Your task to perform on an android device: manage bookmarks in the chrome app Image 0: 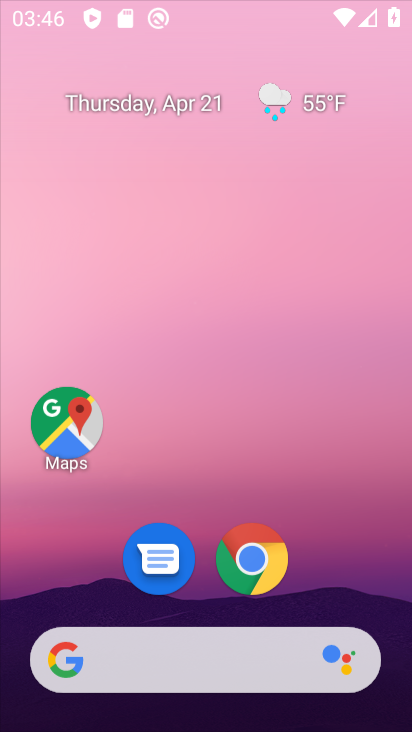
Step 0: click (282, 562)
Your task to perform on an android device: manage bookmarks in the chrome app Image 1: 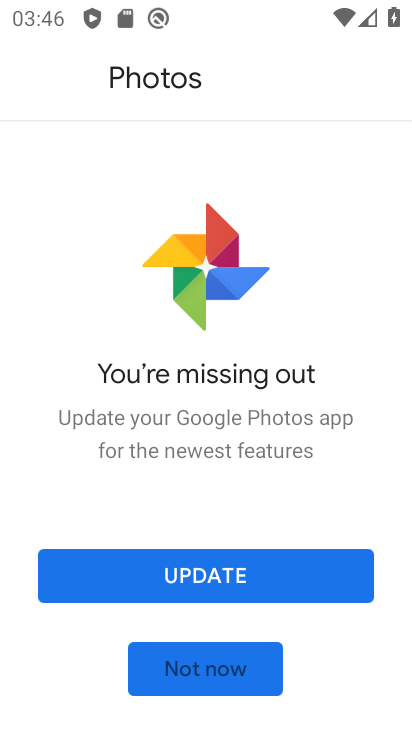
Step 1: press home button
Your task to perform on an android device: manage bookmarks in the chrome app Image 2: 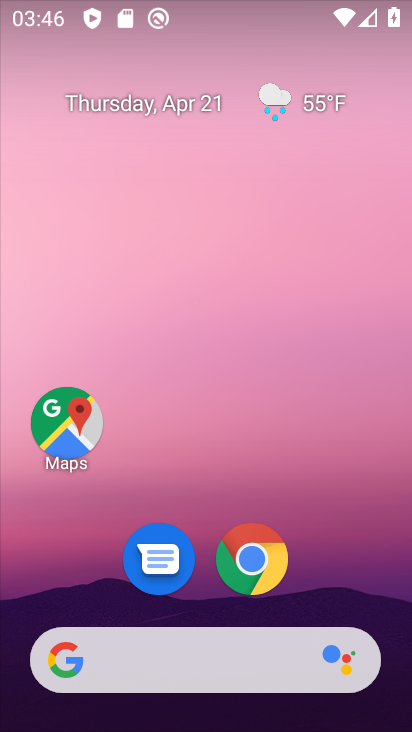
Step 2: click (255, 547)
Your task to perform on an android device: manage bookmarks in the chrome app Image 3: 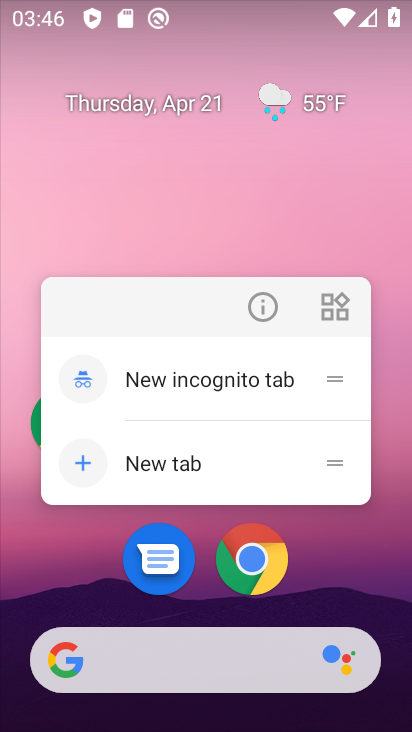
Step 3: click (280, 570)
Your task to perform on an android device: manage bookmarks in the chrome app Image 4: 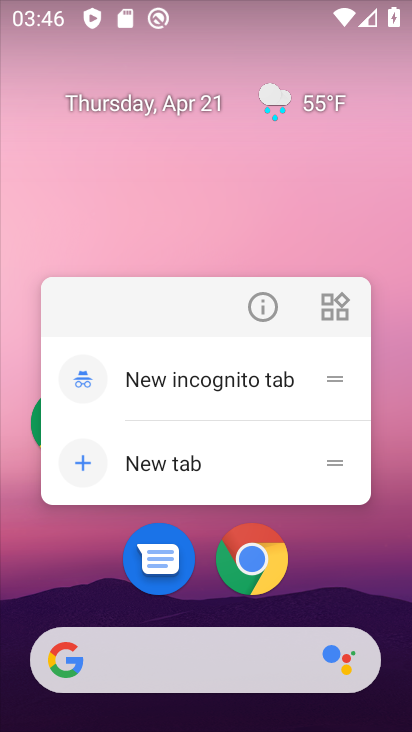
Step 4: click (256, 573)
Your task to perform on an android device: manage bookmarks in the chrome app Image 5: 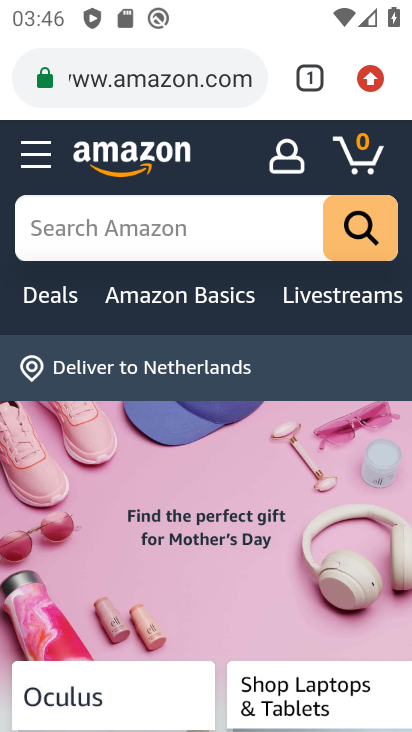
Step 5: click (371, 92)
Your task to perform on an android device: manage bookmarks in the chrome app Image 6: 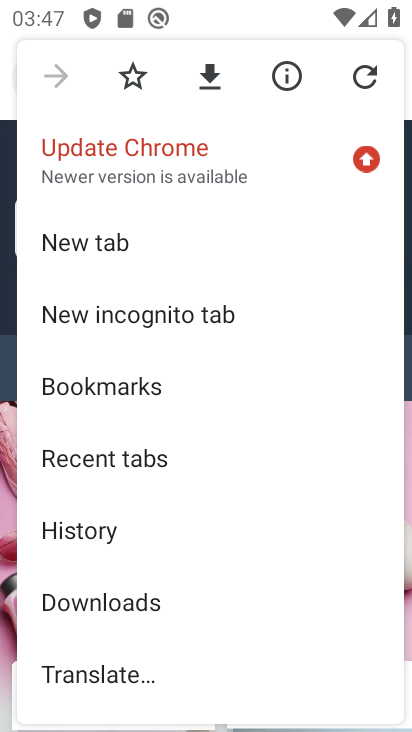
Step 6: click (87, 385)
Your task to perform on an android device: manage bookmarks in the chrome app Image 7: 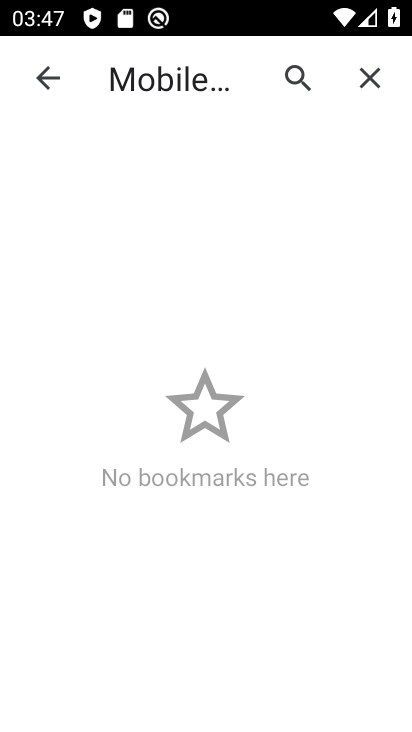
Step 7: task complete